Your task to perform on an android device: remove spam from my inbox in the gmail app Image 0: 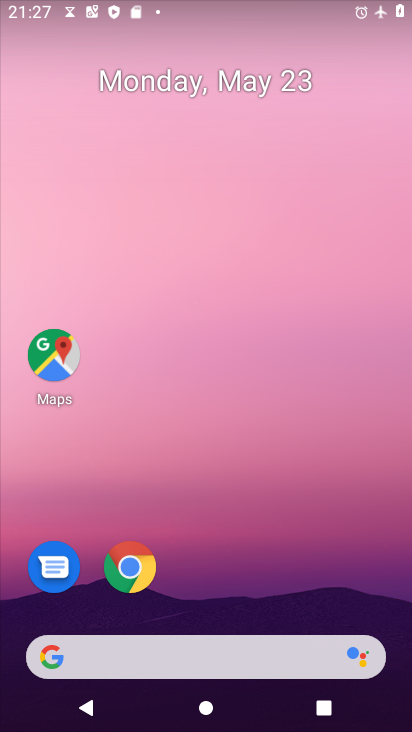
Step 0: drag from (195, 555) to (207, 265)
Your task to perform on an android device: remove spam from my inbox in the gmail app Image 1: 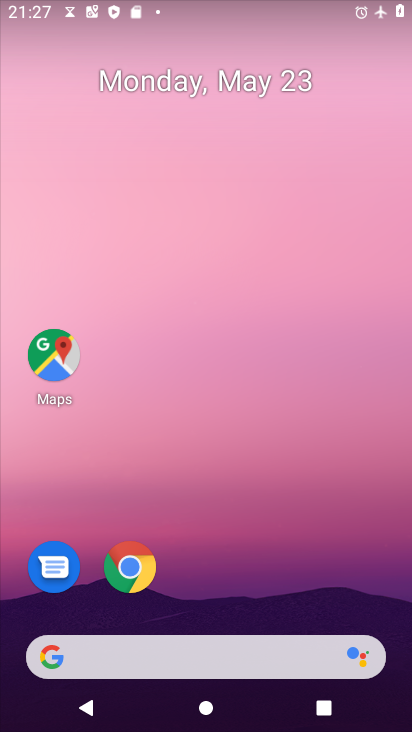
Step 1: drag from (246, 571) to (231, 144)
Your task to perform on an android device: remove spam from my inbox in the gmail app Image 2: 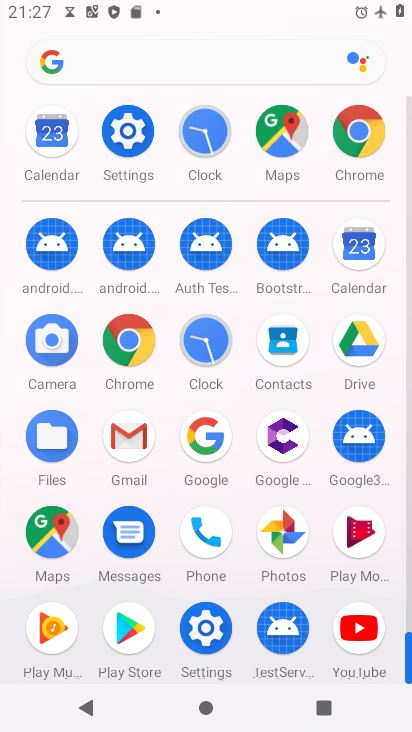
Step 2: click (135, 422)
Your task to perform on an android device: remove spam from my inbox in the gmail app Image 3: 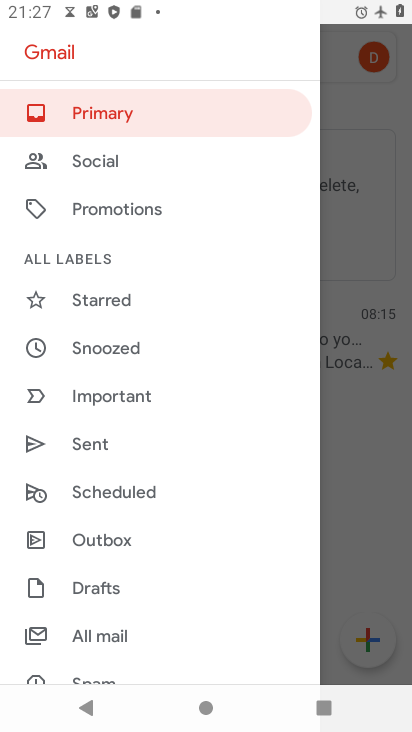
Step 3: click (176, 343)
Your task to perform on an android device: remove spam from my inbox in the gmail app Image 4: 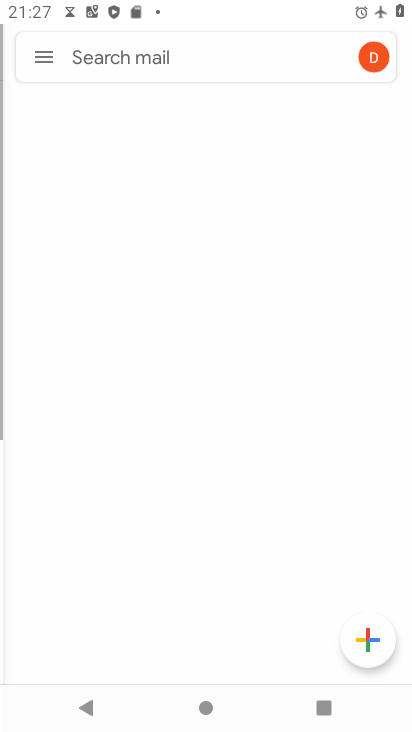
Step 4: drag from (116, 637) to (207, 205)
Your task to perform on an android device: remove spam from my inbox in the gmail app Image 5: 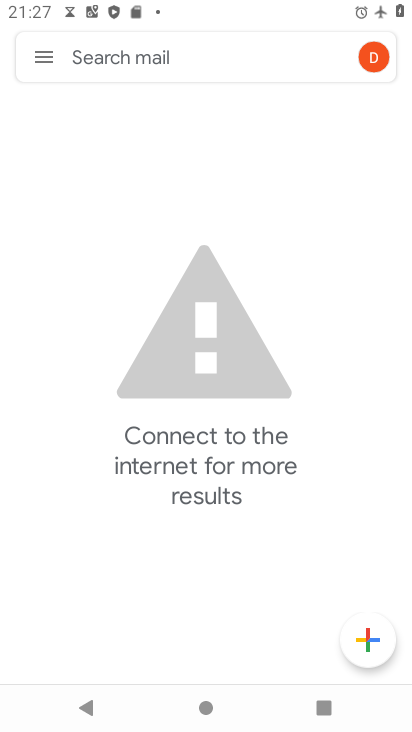
Step 5: click (22, 49)
Your task to perform on an android device: remove spam from my inbox in the gmail app Image 6: 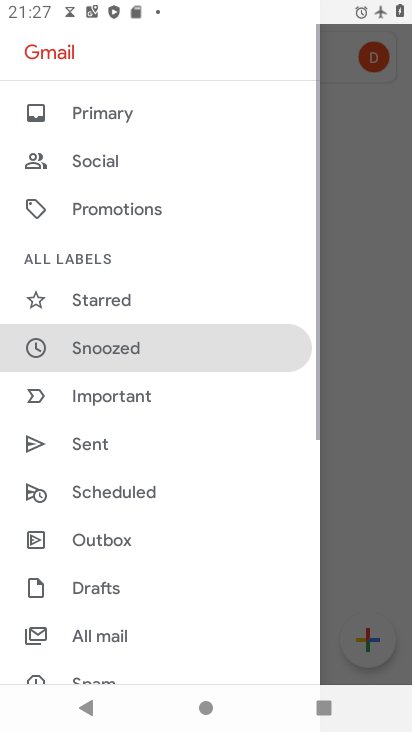
Step 6: drag from (168, 600) to (260, 124)
Your task to perform on an android device: remove spam from my inbox in the gmail app Image 7: 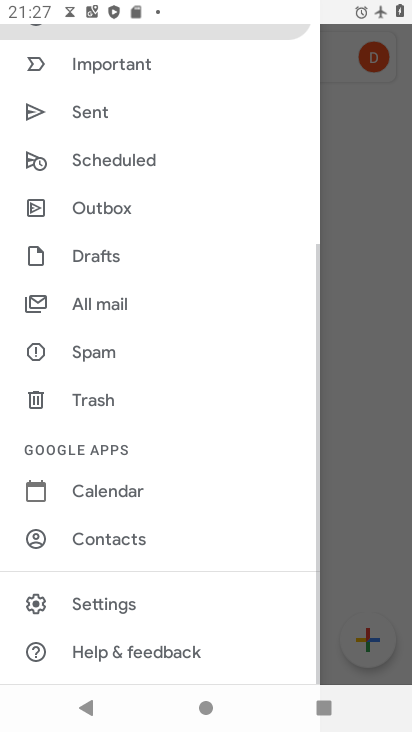
Step 7: click (114, 352)
Your task to perform on an android device: remove spam from my inbox in the gmail app Image 8: 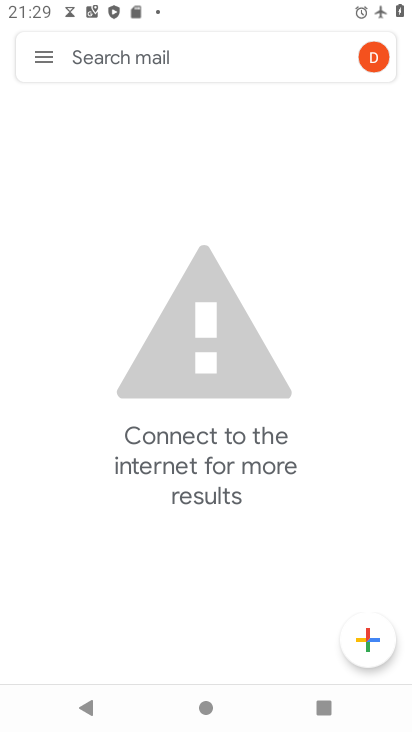
Step 8: task complete